Your task to perform on an android device: toggle pop-ups in chrome Image 0: 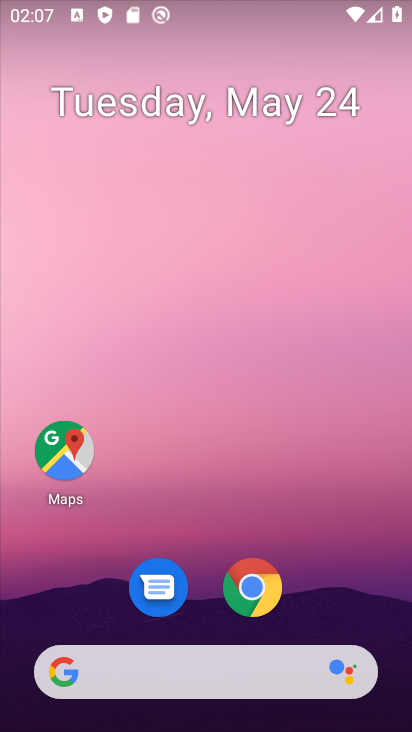
Step 0: click (274, 595)
Your task to perform on an android device: toggle pop-ups in chrome Image 1: 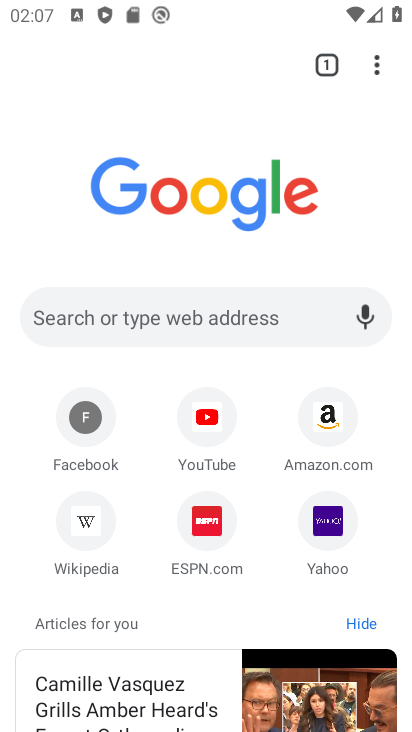
Step 1: click (370, 60)
Your task to perform on an android device: toggle pop-ups in chrome Image 2: 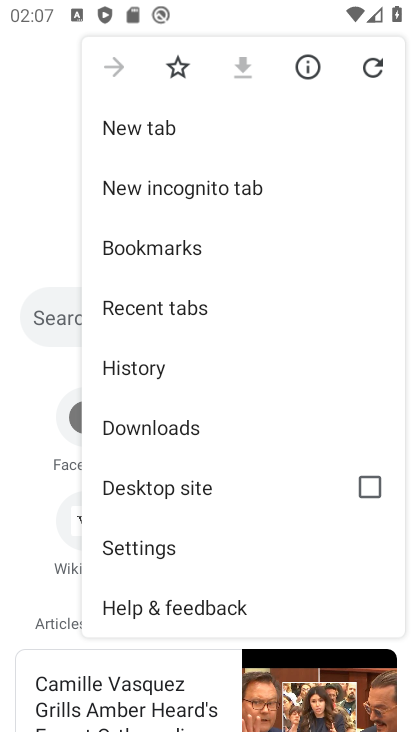
Step 2: click (195, 548)
Your task to perform on an android device: toggle pop-ups in chrome Image 3: 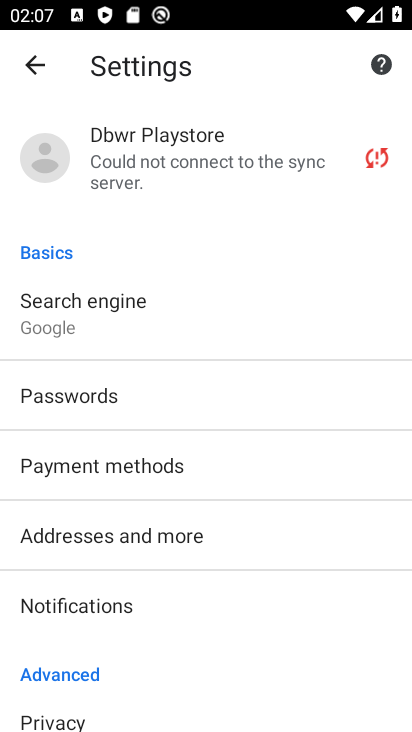
Step 3: drag from (187, 628) to (237, 186)
Your task to perform on an android device: toggle pop-ups in chrome Image 4: 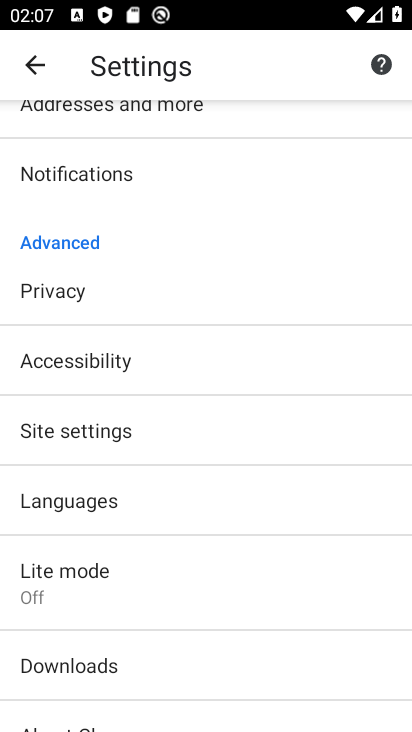
Step 4: click (138, 441)
Your task to perform on an android device: toggle pop-ups in chrome Image 5: 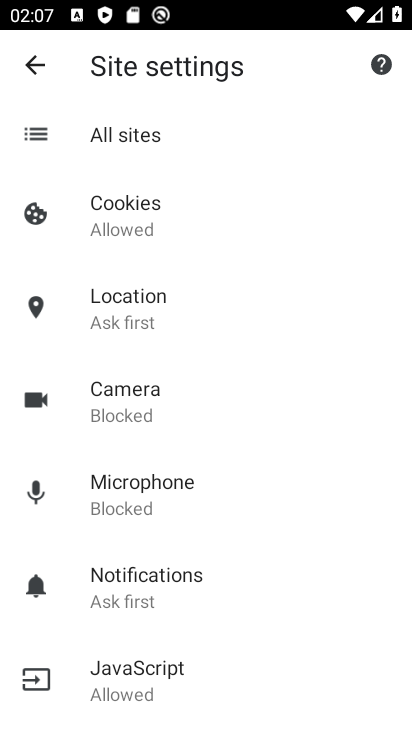
Step 5: drag from (273, 606) to (307, 231)
Your task to perform on an android device: toggle pop-ups in chrome Image 6: 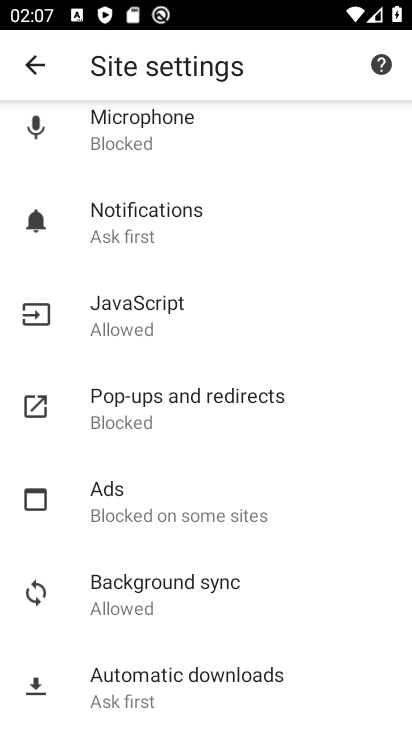
Step 6: click (199, 403)
Your task to perform on an android device: toggle pop-ups in chrome Image 7: 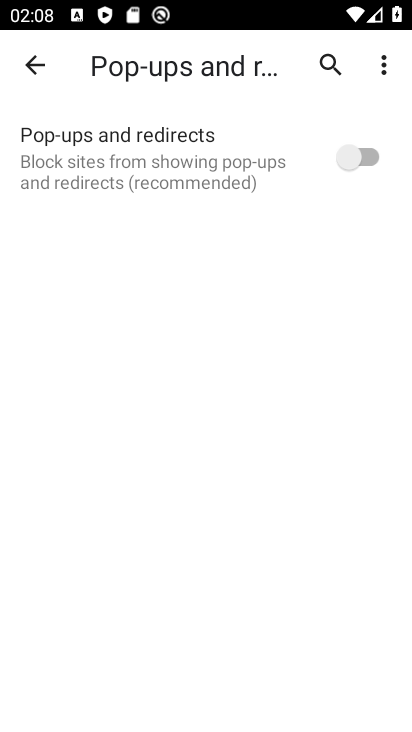
Step 7: click (358, 165)
Your task to perform on an android device: toggle pop-ups in chrome Image 8: 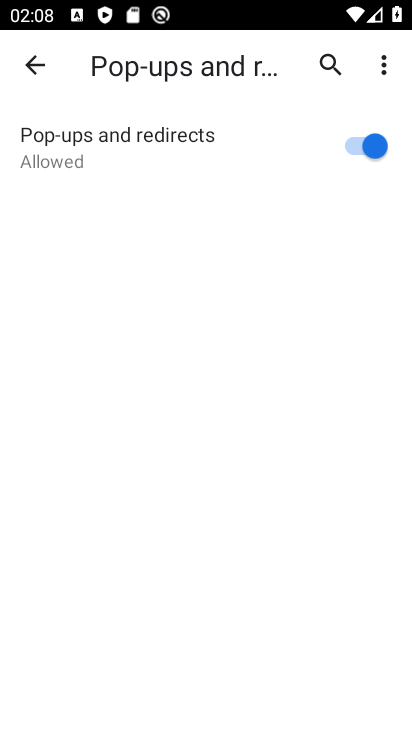
Step 8: task complete